Your task to perform on an android device: When is my next appointment? Image 0: 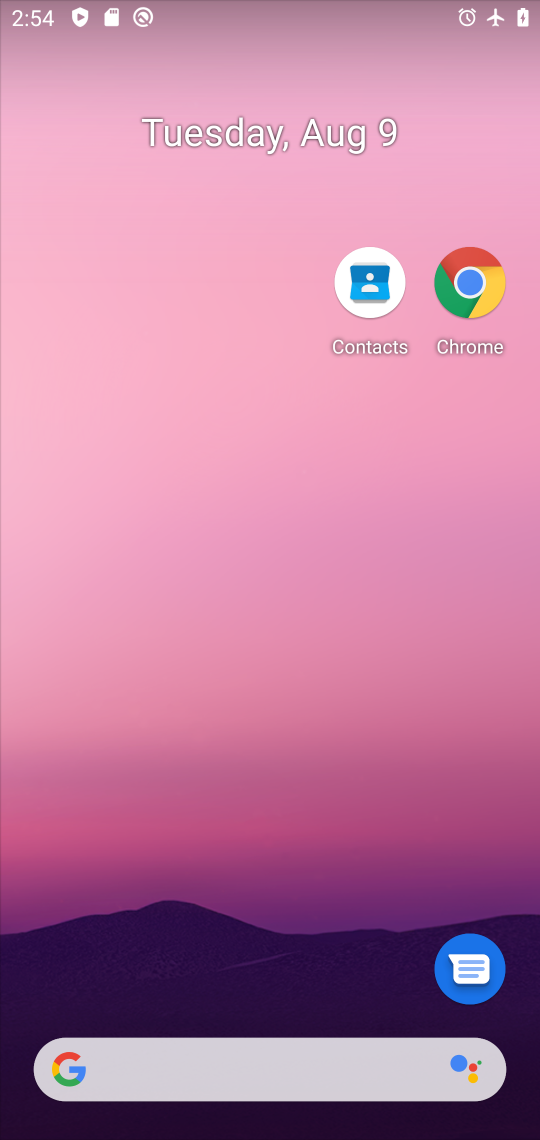
Step 0: drag from (273, 940) to (313, 413)
Your task to perform on an android device: When is my next appointment? Image 1: 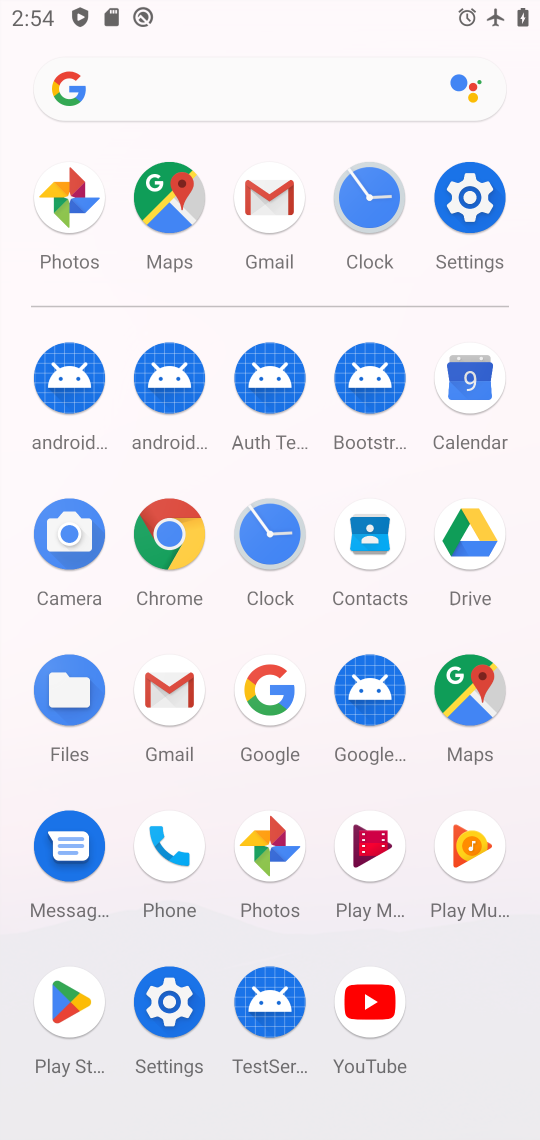
Step 1: click (476, 361)
Your task to perform on an android device: When is my next appointment? Image 2: 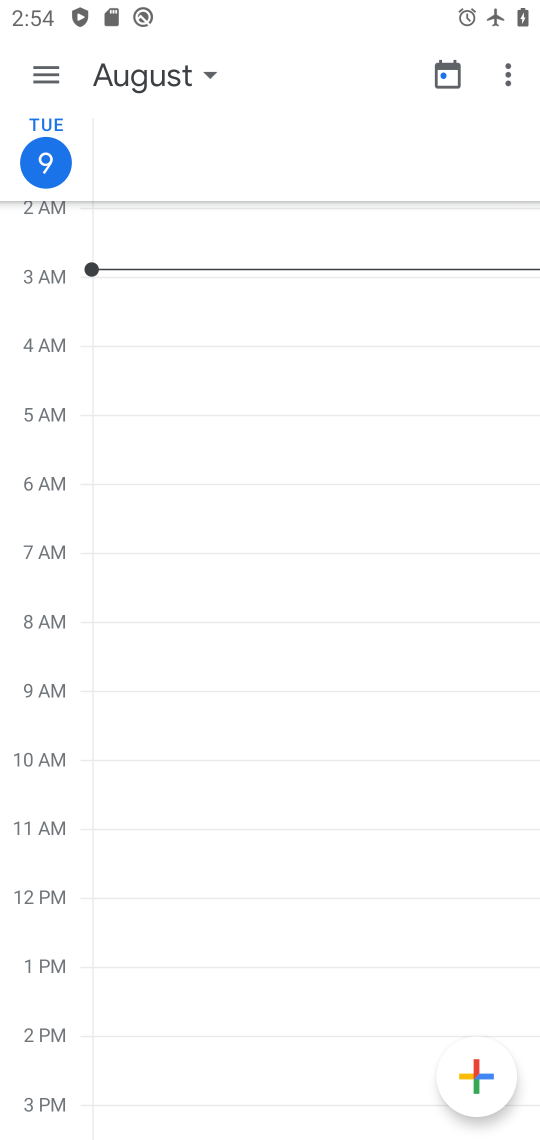
Step 2: click (167, 86)
Your task to perform on an android device: When is my next appointment? Image 3: 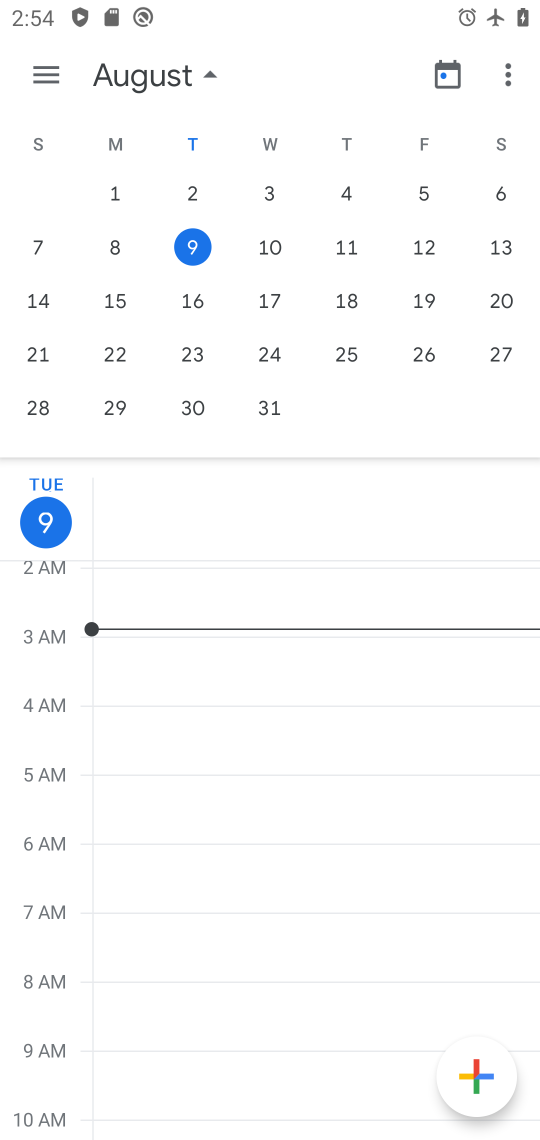
Step 3: click (443, 87)
Your task to perform on an android device: When is my next appointment? Image 4: 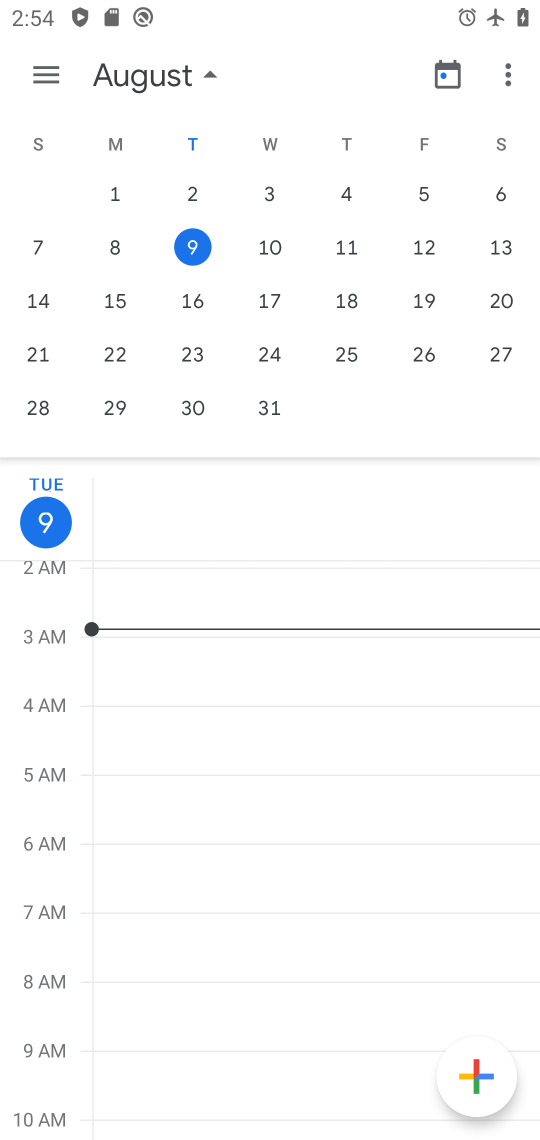
Step 4: click (192, 252)
Your task to perform on an android device: When is my next appointment? Image 5: 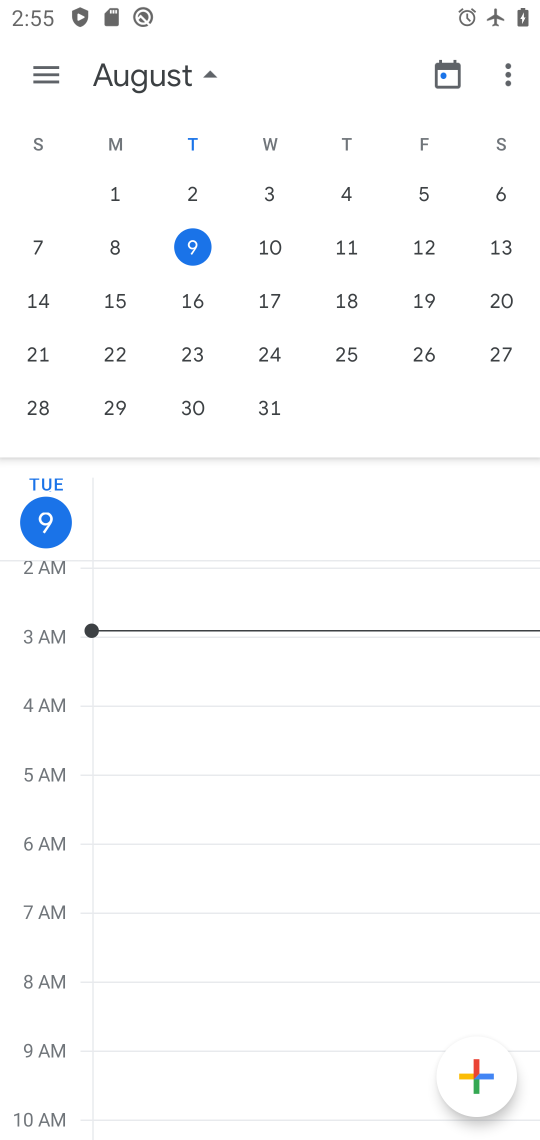
Step 5: task complete